Your task to perform on an android device: set the timer Image 0: 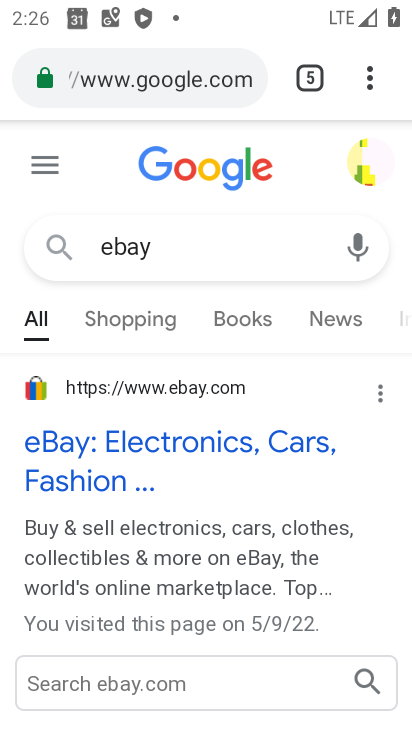
Step 0: press home button
Your task to perform on an android device: set the timer Image 1: 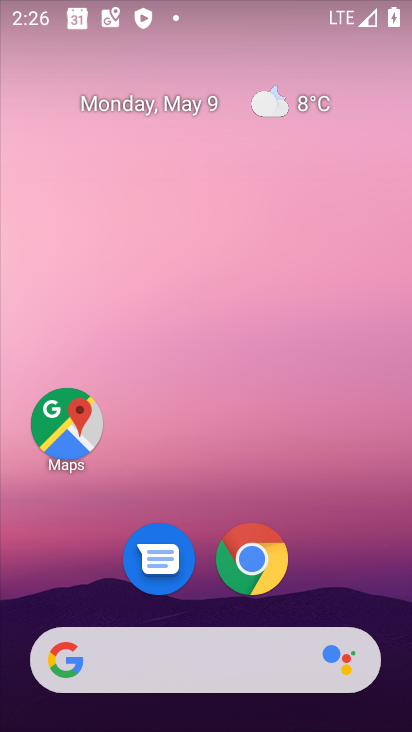
Step 1: drag from (318, 531) to (221, 112)
Your task to perform on an android device: set the timer Image 2: 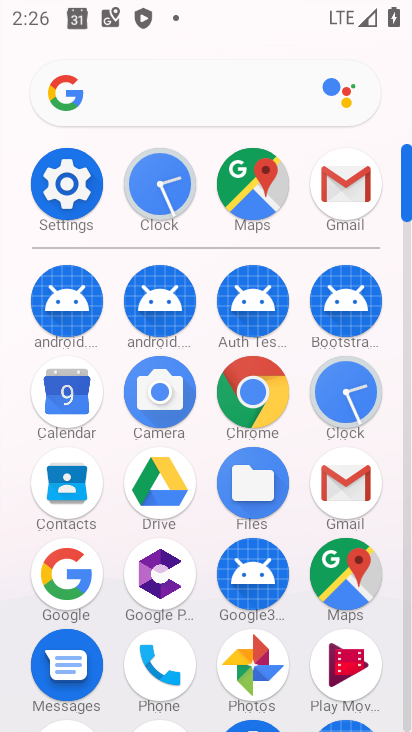
Step 2: click (346, 384)
Your task to perform on an android device: set the timer Image 3: 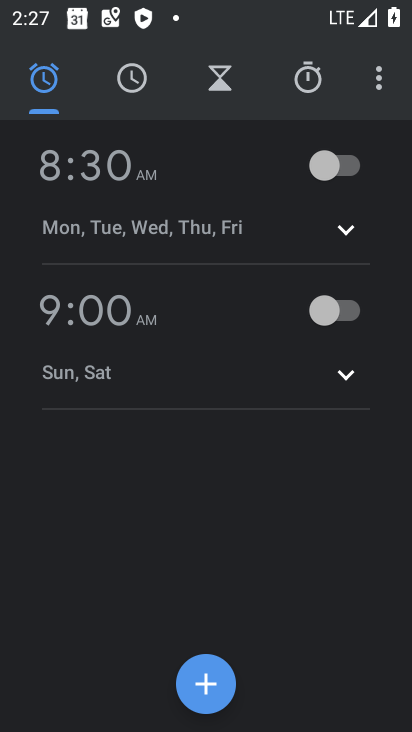
Step 3: click (227, 79)
Your task to perform on an android device: set the timer Image 4: 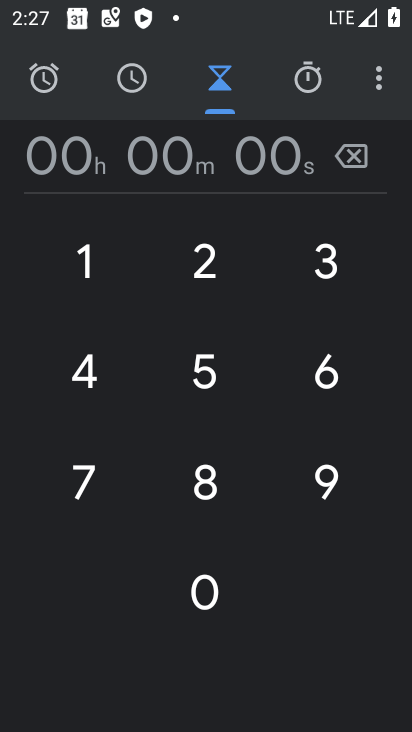
Step 4: click (87, 260)
Your task to perform on an android device: set the timer Image 5: 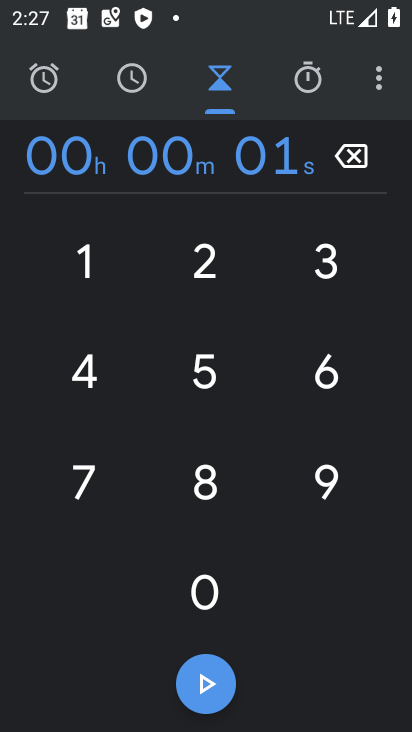
Step 5: click (87, 260)
Your task to perform on an android device: set the timer Image 6: 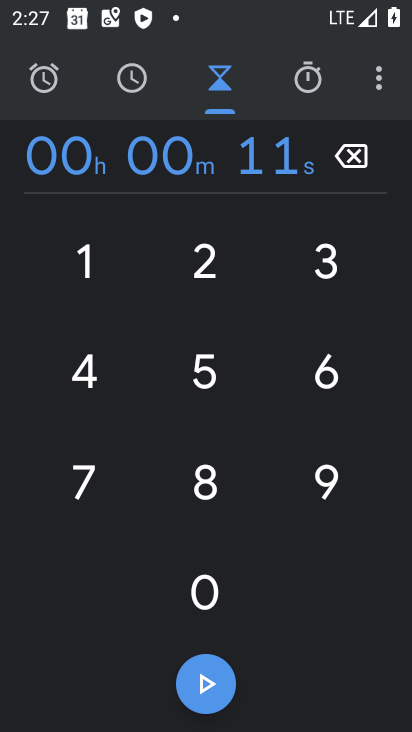
Step 6: click (87, 260)
Your task to perform on an android device: set the timer Image 7: 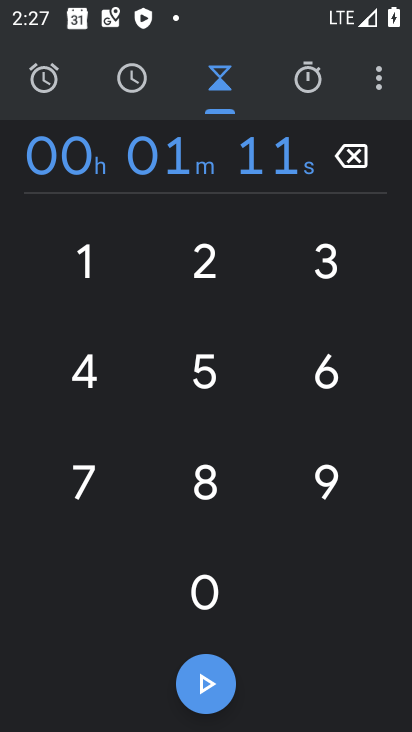
Step 7: click (87, 260)
Your task to perform on an android device: set the timer Image 8: 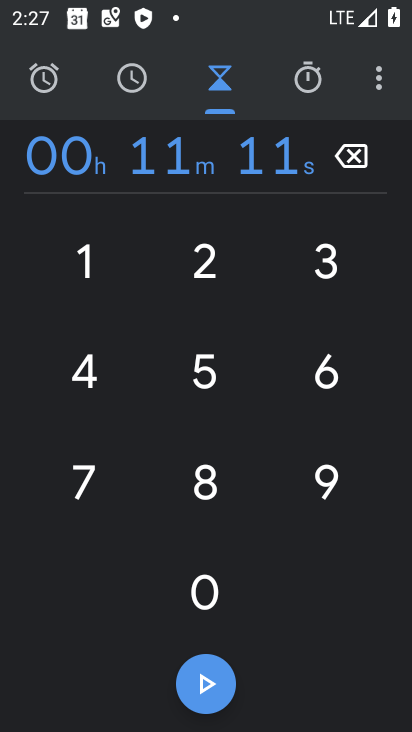
Step 8: click (87, 260)
Your task to perform on an android device: set the timer Image 9: 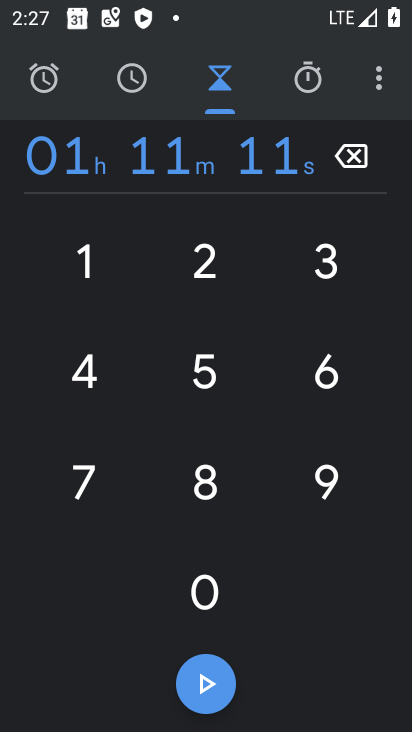
Step 9: task complete